Your task to perform on an android device: open app "Contacts" (install if not already installed) Image 0: 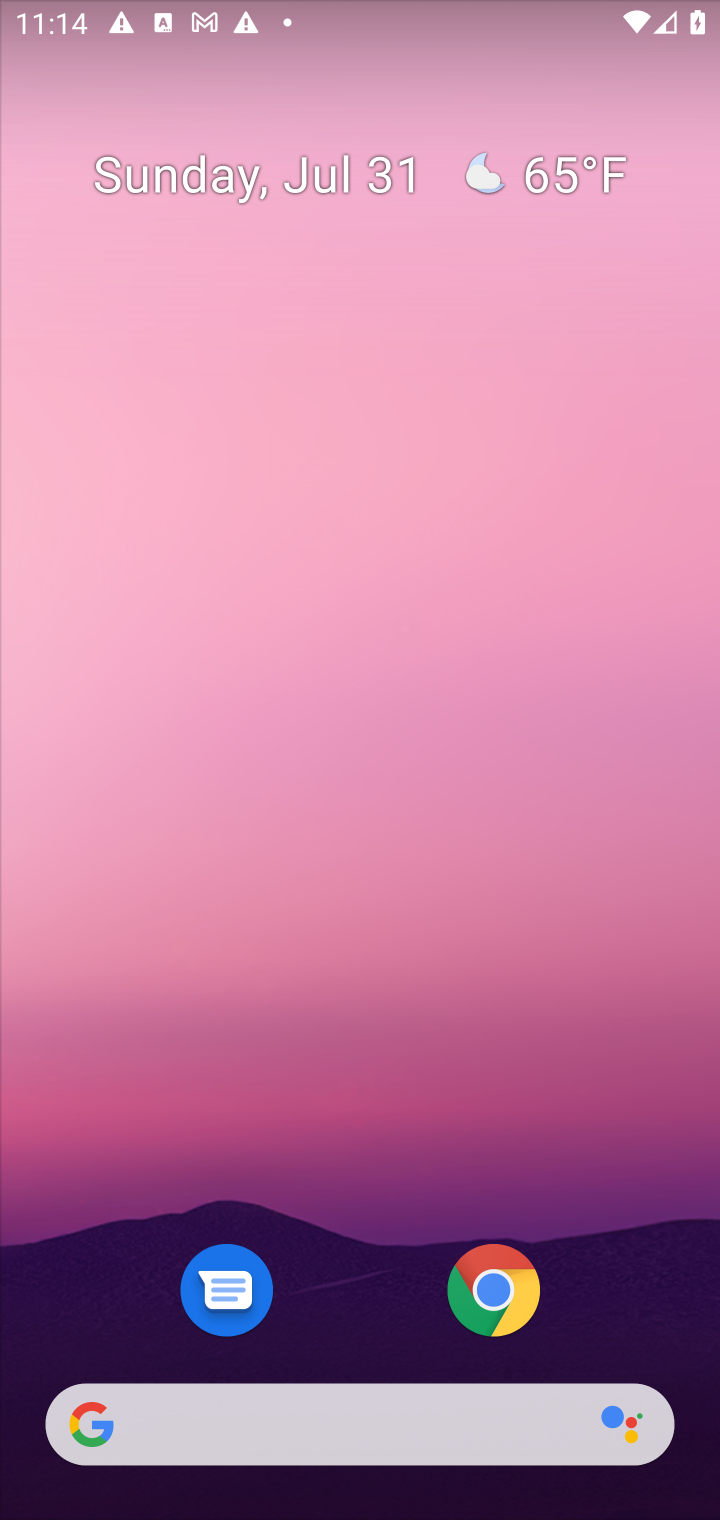
Step 0: drag from (547, 926) to (491, 73)
Your task to perform on an android device: open app "Contacts" (install if not already installed) Image 1: 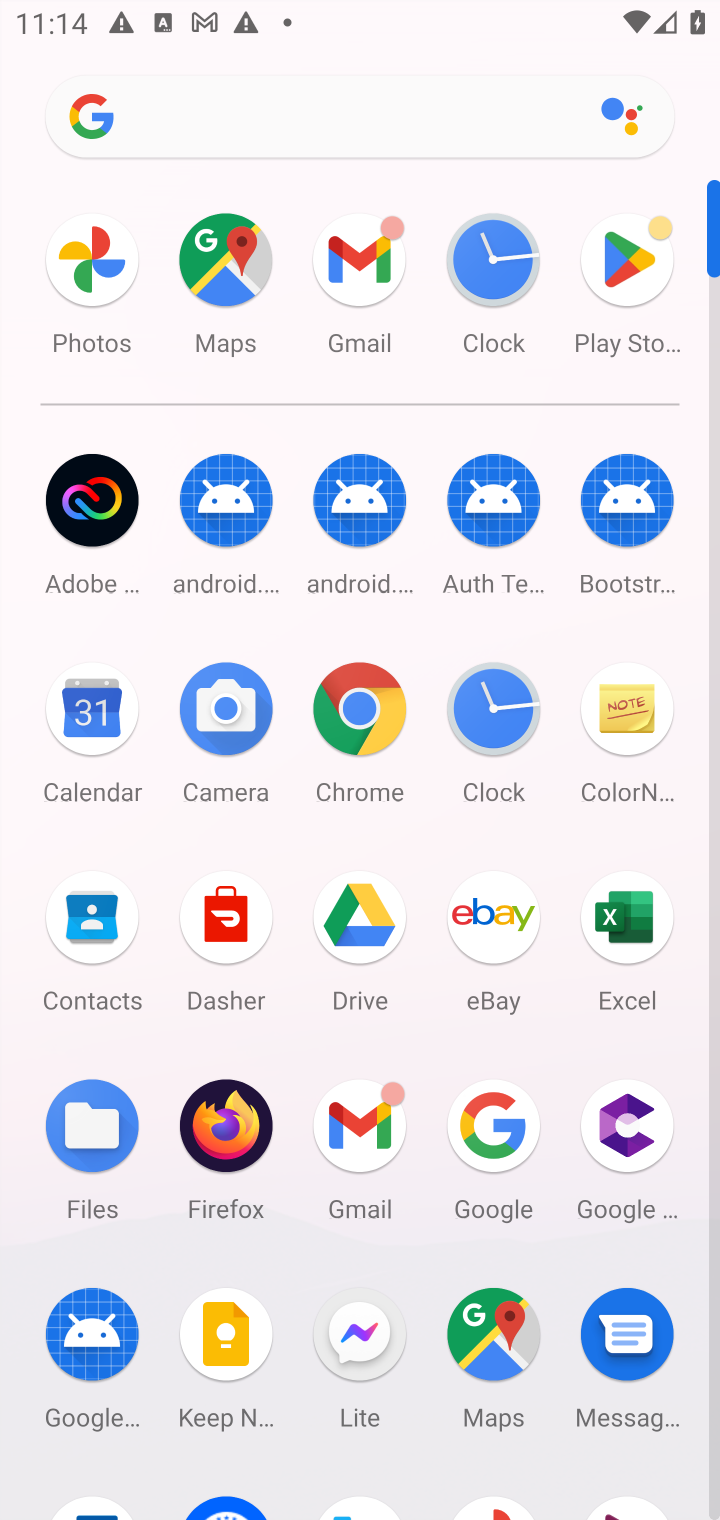
Step 1: click (640, 257)
Your task to perform on an android device: open app "Contacts" (install if not already installed) Image 2: 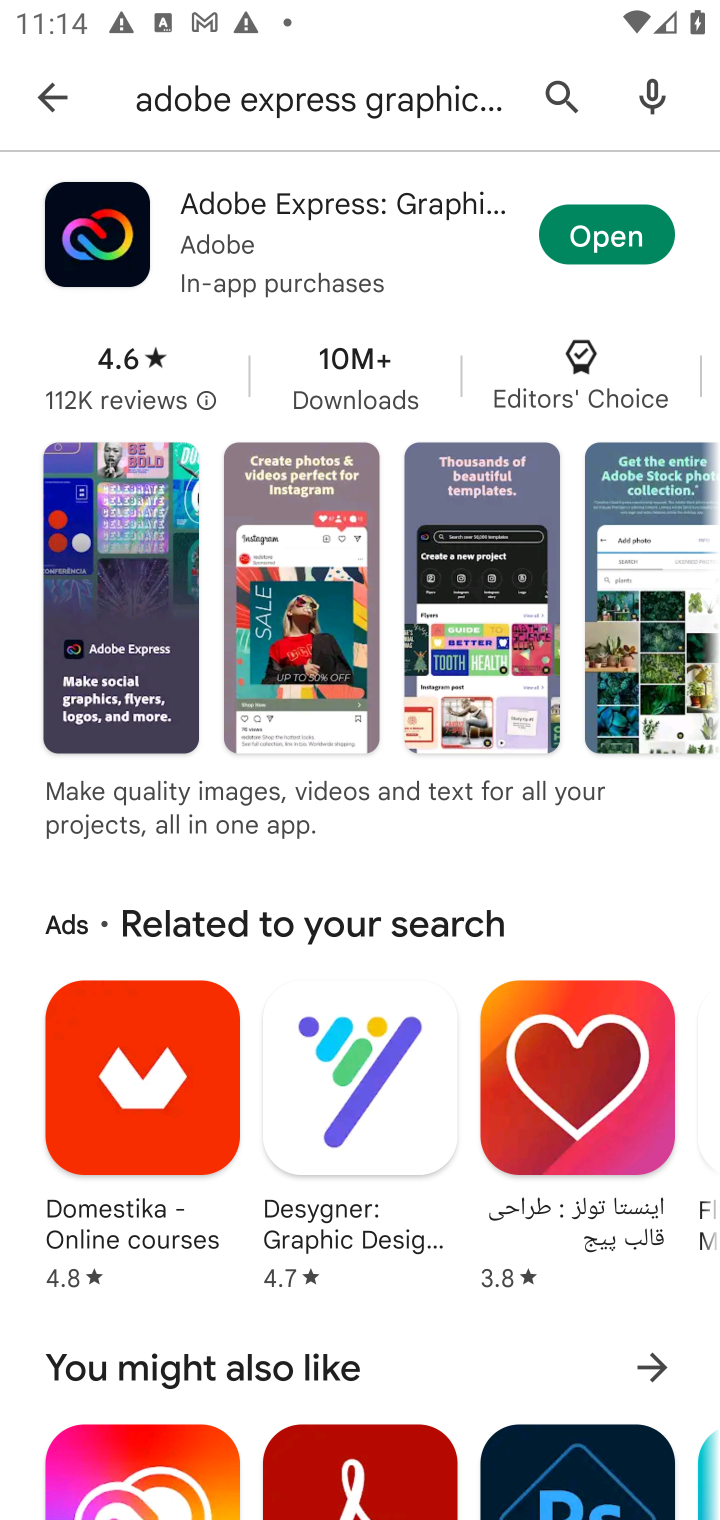
Step 2: click (556, 99)
Your task to perform on an android device: open app "Contacts" (install if not already installed) Image 3: 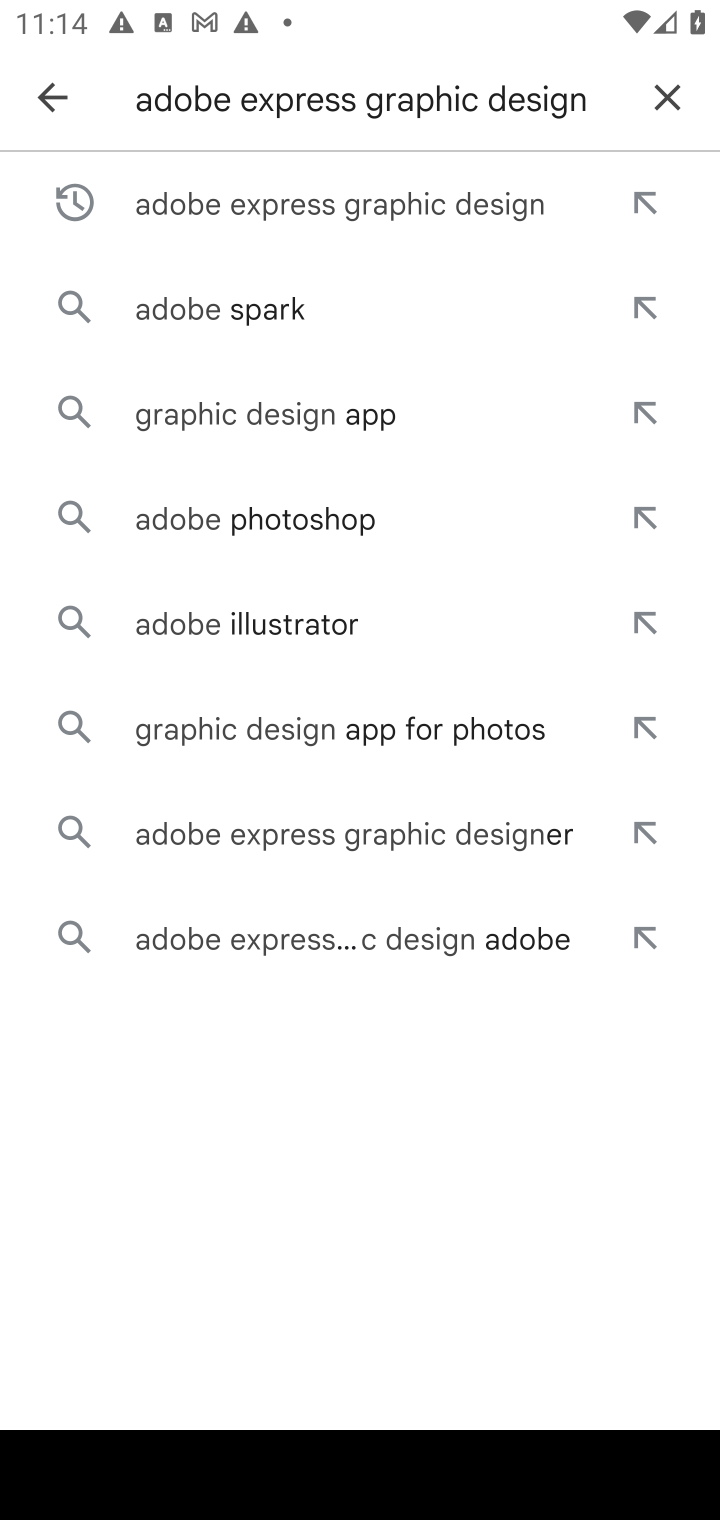
Step 3: click (659, 86)
Your task to perform on an android device: open app "Contacts" (install if not already installed) Image 4: 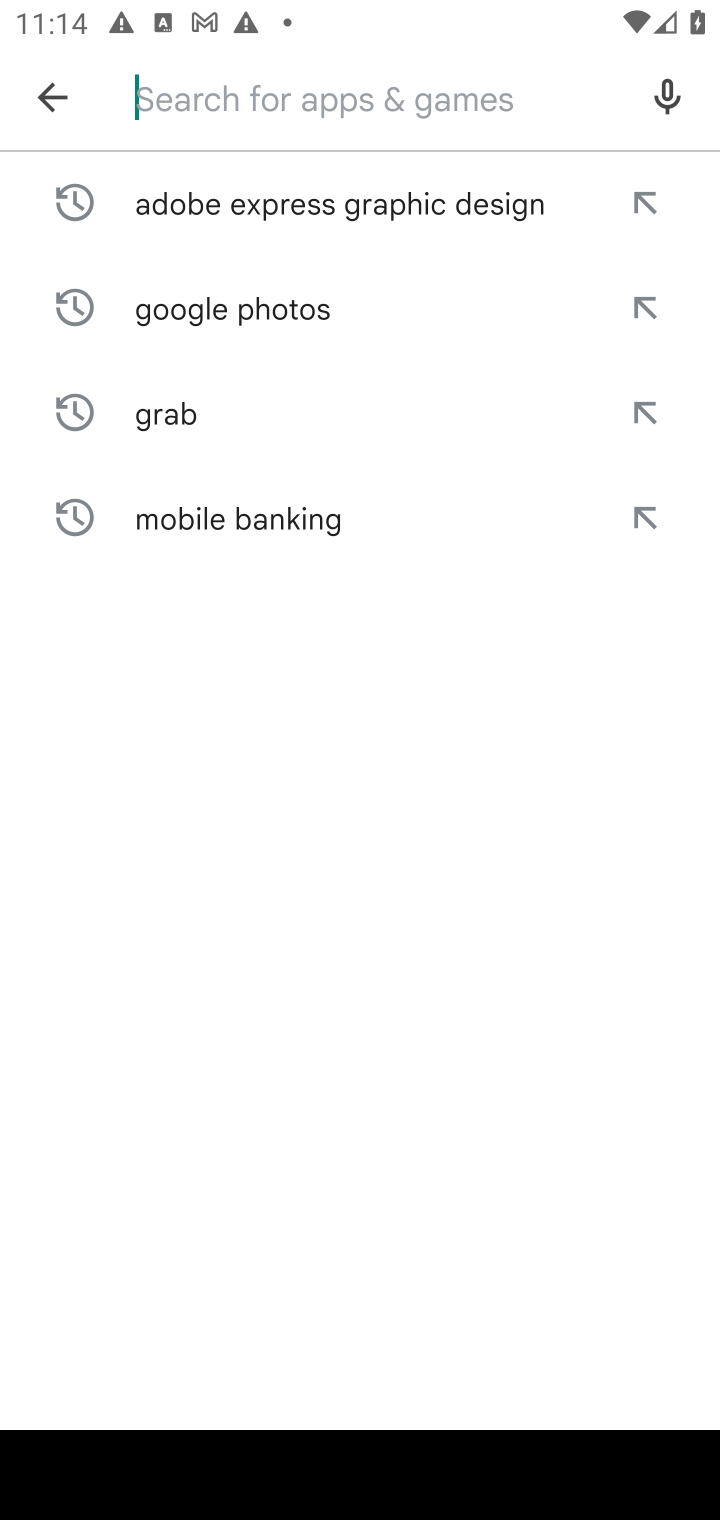
Step 4: type "contacts"
Your task to perform on an android device: open app "Contacts" (install if not already installed) Image 5: 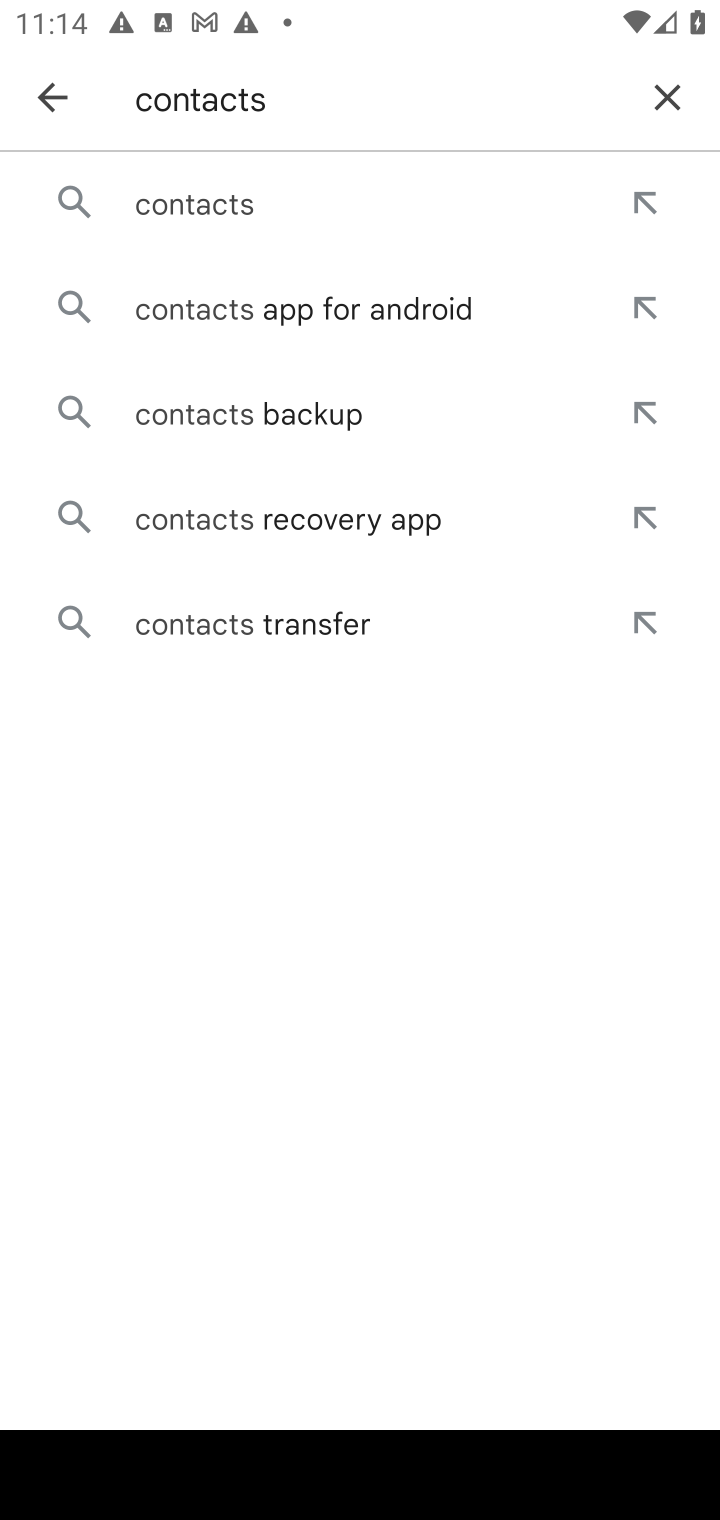
Step 5: click (446, 214)
Your task to perform on an android device: open app "Contacts" (install if not already installed) Image 6: 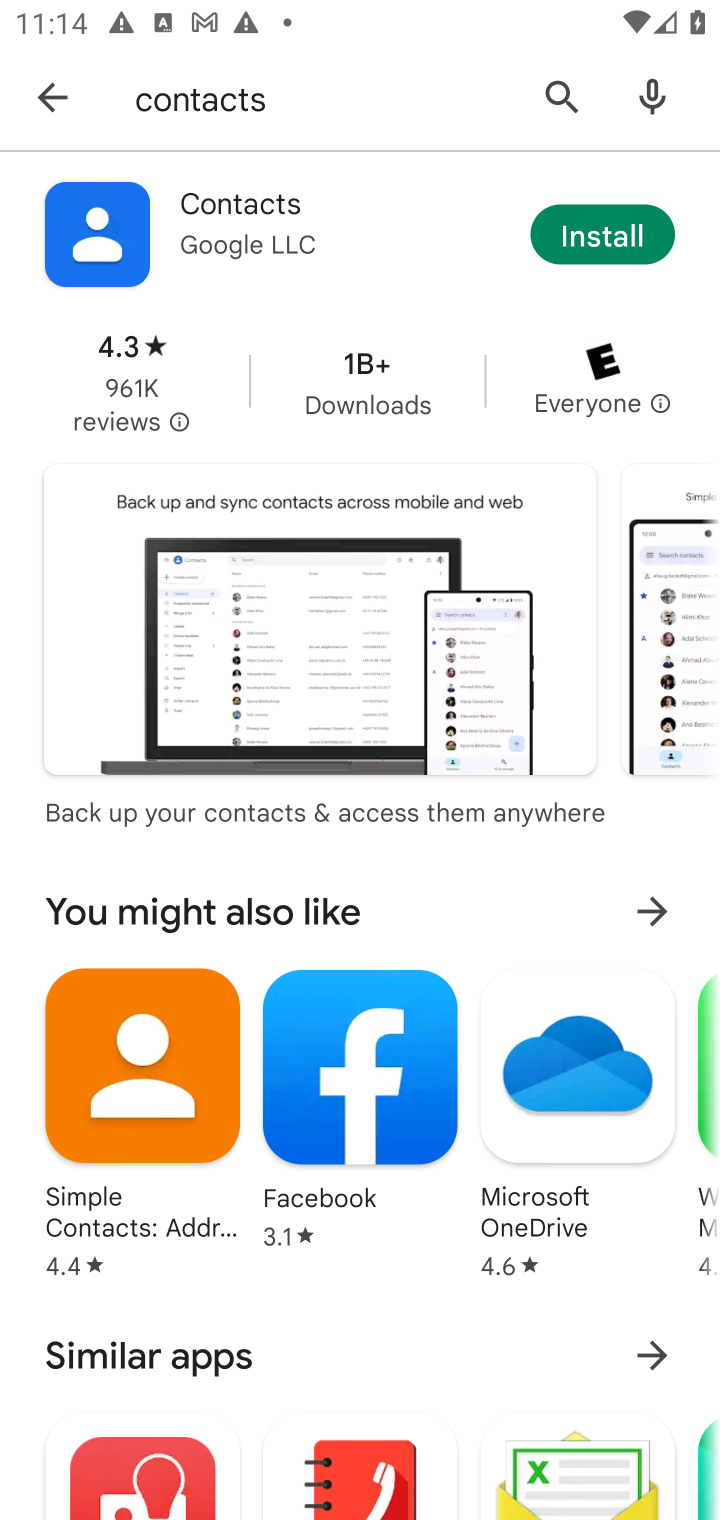
Step 6: click (625, 223)
Your task to perform on an android device: open app "Contacts" (install if not already installed) Image 7: 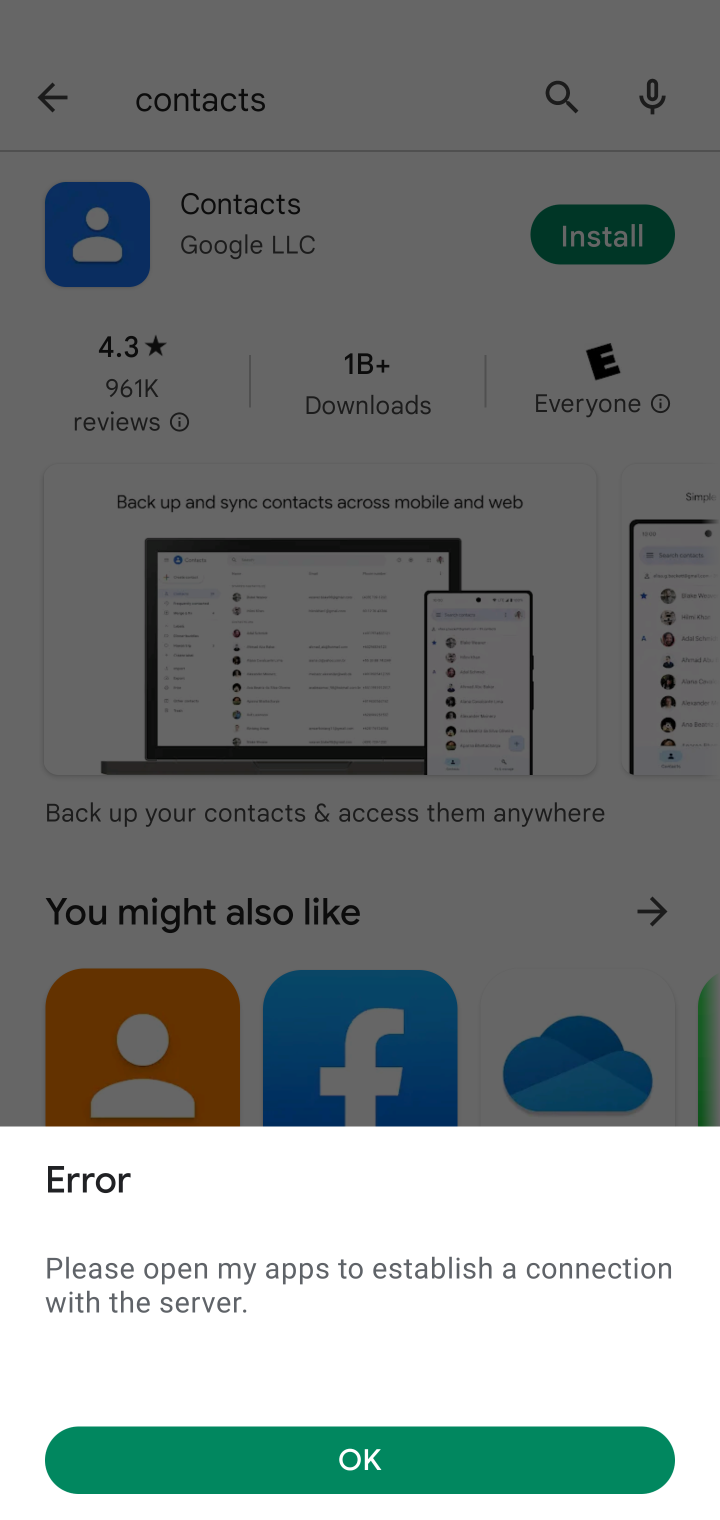
Step 7: task complete